Your task to perform on an android device: turn pop-ups off in chrome Image 0: 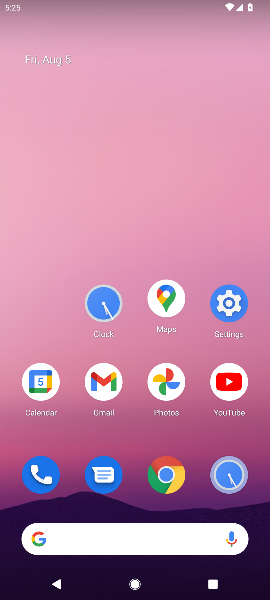
Step 0: click (159, 475)
Your task to perform on an android device: turn pop-ups off in chrome Image 1: 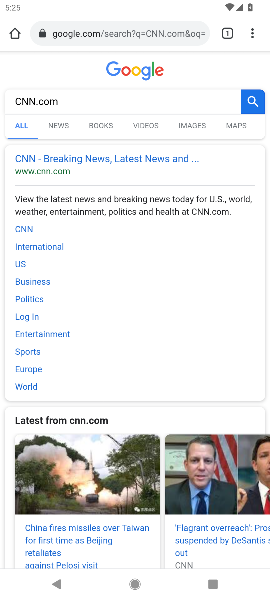
Step 1: click (250, 27)
Your task to perform on an android device: turn pop-ups off in chrome Image 2: 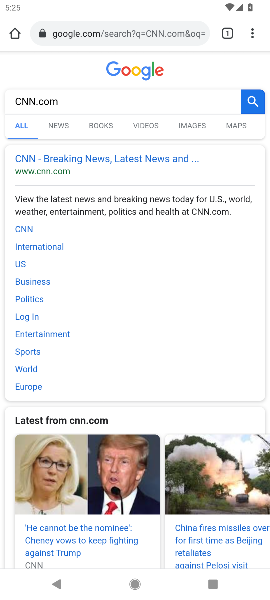
Step 2: click (252, 30)
Your task to perform on an android device: turn pop-ups off in chrome Image 3: 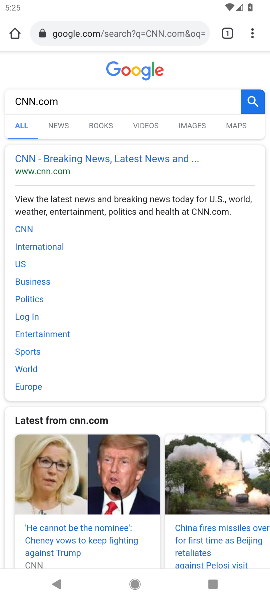
Step 3: click (251, 32)
Your task to perform on an android device: turn pop-ups off in chrome Image 4: 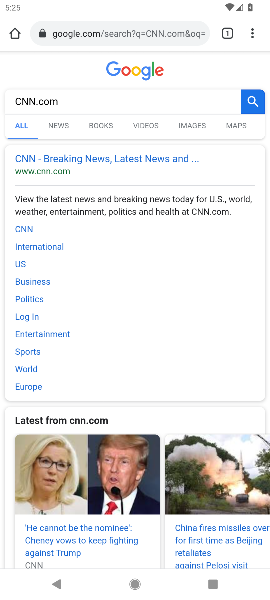
Step 4: click (251, 32)
Your task to perform on an android device: turn pop-ups off in chrome Image 5: 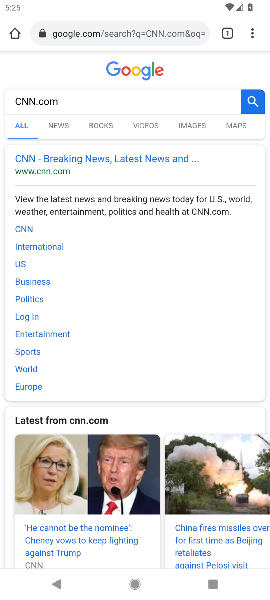
Step 5: click (251, 32)
Your task to perform on an android device: turn pop-ups off in chrome Image 6: 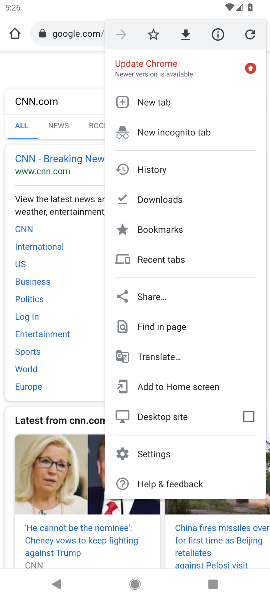
Step 6: click (159, 451)
Your task to perform on an android device: turn pop-ups off in chrome Image 7: 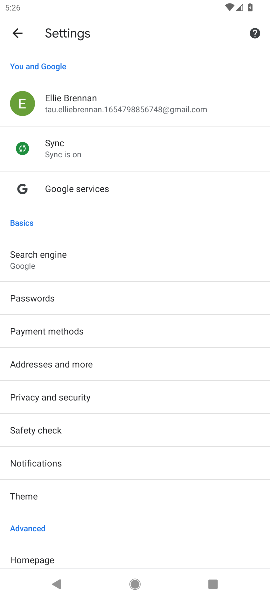
Step 7: drag from (134, 444) to (135, 342)
Your task to perform on an android device: turn pop-ups off in chrome Image 8: 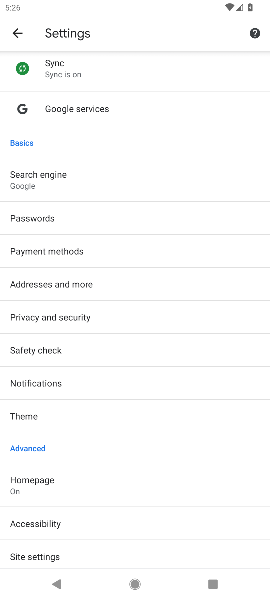
Step 8: drag from (174, 503) to (176, 287)
Your task to perform on an android device: turn pop-ups off in chrome Image 9: 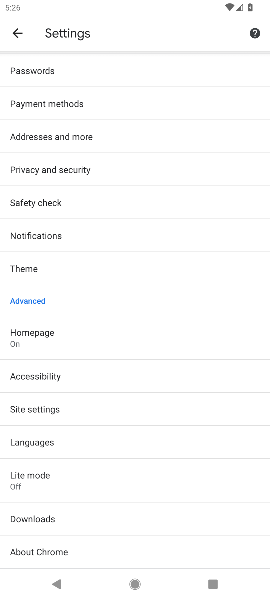
Step 9: click (39, 412)
Your task to perform on an android device: turn pop-ups off in chrome Image 10: 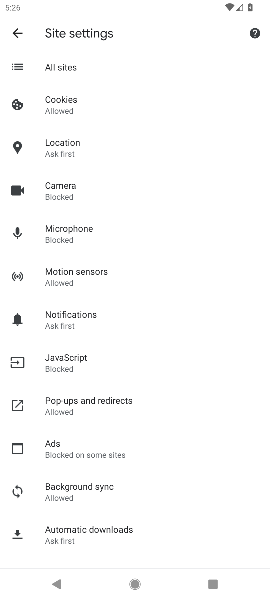
Step 10: click (91, 410)
Your task to perform on an android device: turn pop-ups off in chrome Image 11: 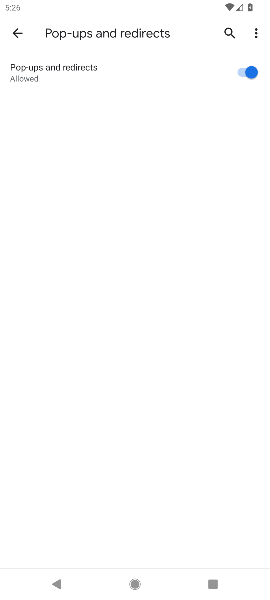
Step 11: click (241, 72)
Your task to perform on an android device: turn pop-ups off in chrome Image 12: 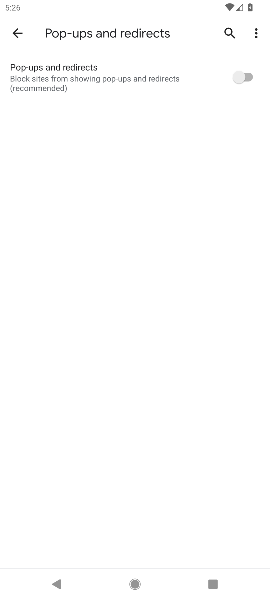
Step 12: task complete